Your task to perform on an android device: Show me the alarms in the clock app Image 0: 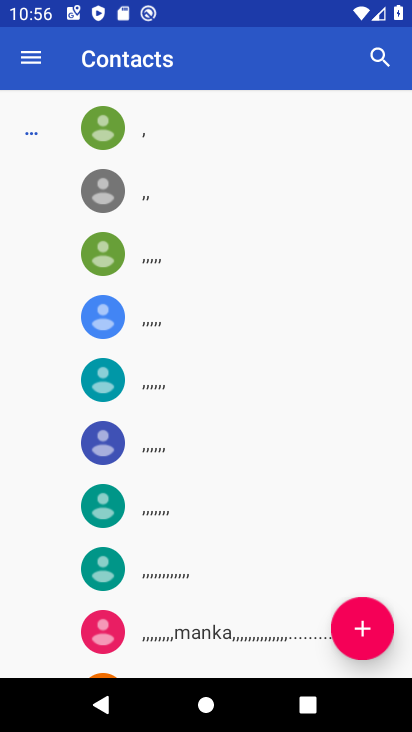
Step 0: press home button
Your task to perform on an android device: Show me the alarms in the clock app Image 1: 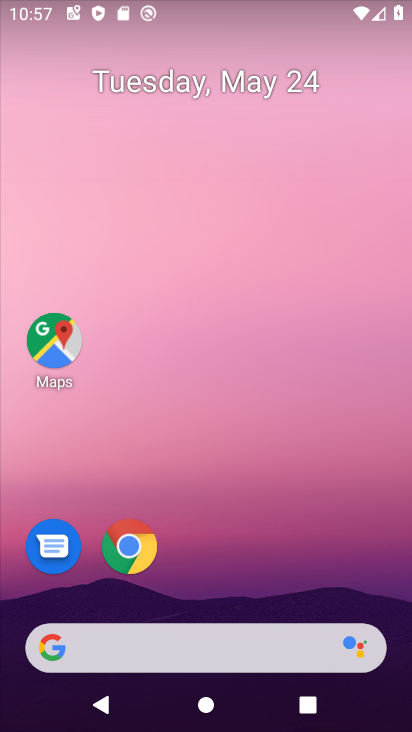
Step 1: drag from (220, 609) to (76, 68)
Your task to perform on an android device: Show me the alarms in the clock app Image 2: 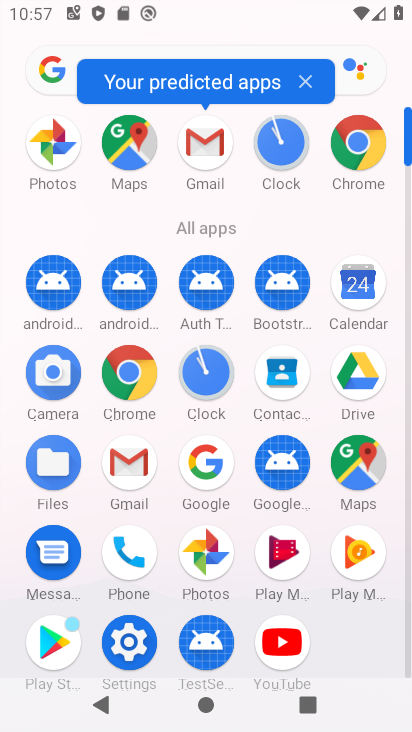
Step 2: click (285, 159)
Your task to perform on an android device: Show me the alarms in the clock app Image 3: 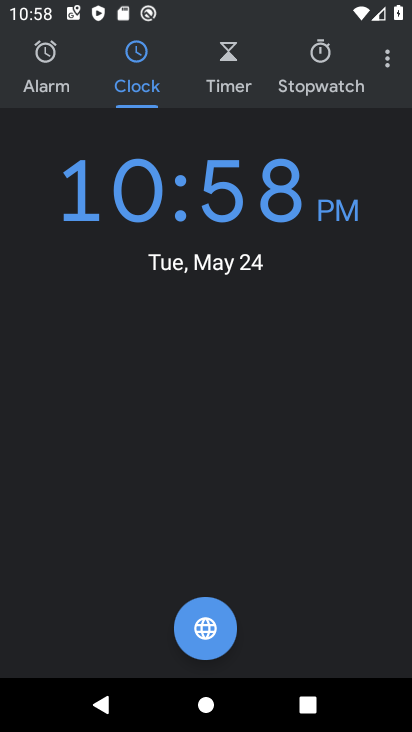
Step 3: click (32, 67)
Your task to perform on an android device: Show me the alarms in the clock app Image 4: 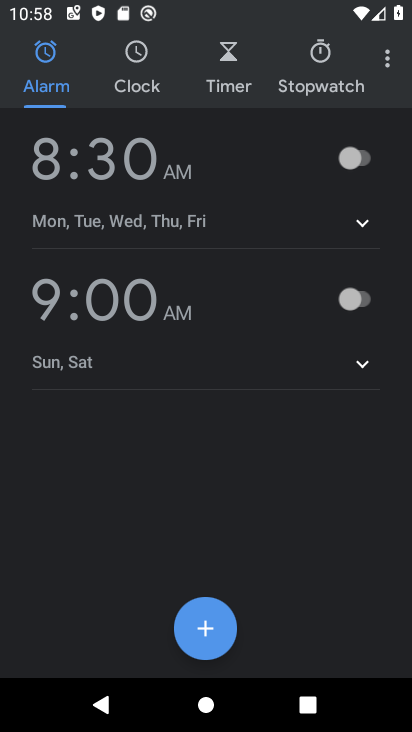
Step 4: task complete